Your task to perform on an android device: toggle javascript in the chrome app Image 0: 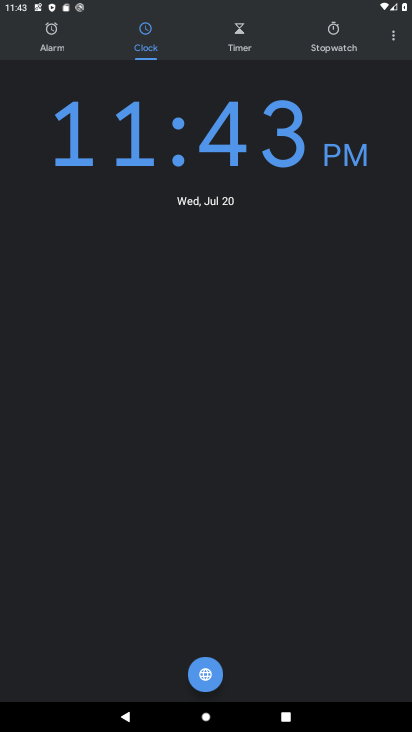
Step 0: press home button
Your task to perform on an android device: toggle javascript in the chrome app Image 1: 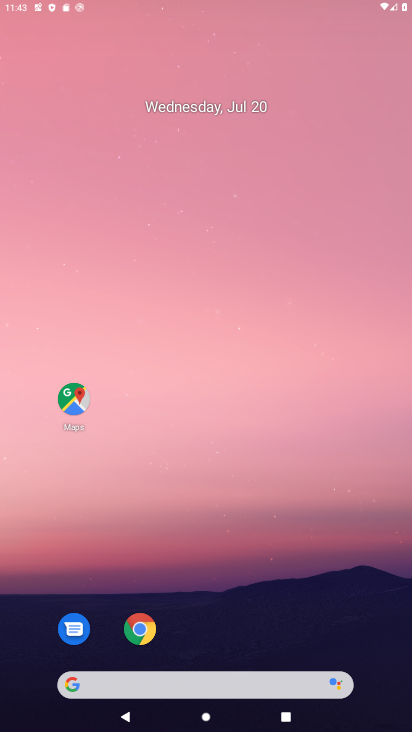
Step 1: drag from (256, 621) to (256, 263)
Your task to perform on an android device: toggle javascript in the chrome app Image 2: 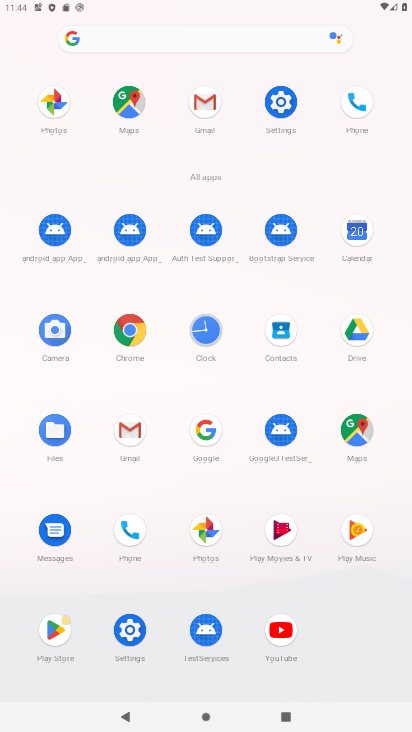
Step 2: click (133, 338)
Your task to perform on an android device: toggle javascript in the chrome app Image 3: 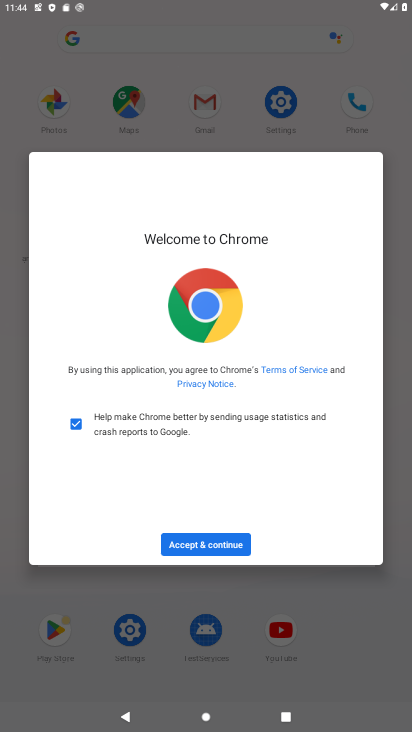
Step 3: click (225, 550)
Your task to perform on an android device: toggle javascript in the chrome app Image 4: 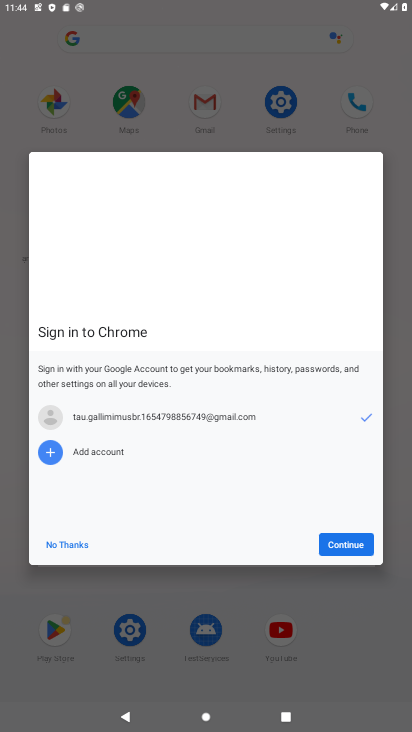
Step 4: click (334, 550)
Your task to perform on an android device: toggle javascript in the chrome app Image 5: 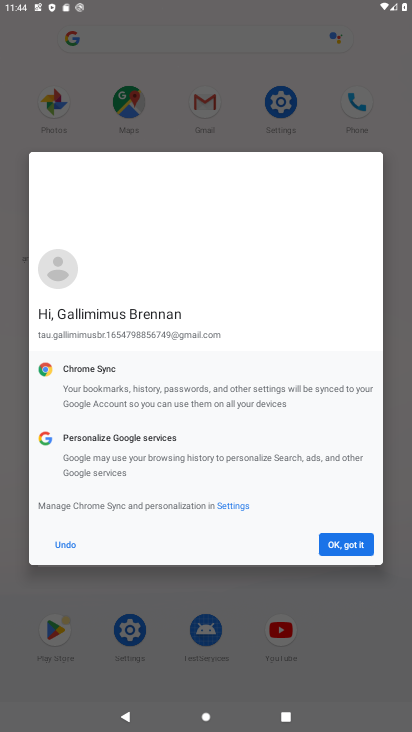
Step 5: click (326, 536)
Your task to perform on an android device: toggle javascript in the chrome app Image 6: 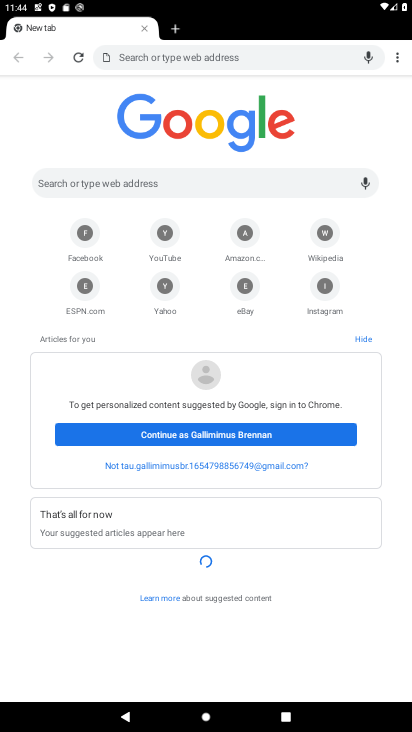
Step 6: click (394, 54)
Your task to perform on an android device: toggle javascript in the chrome app Image 7: 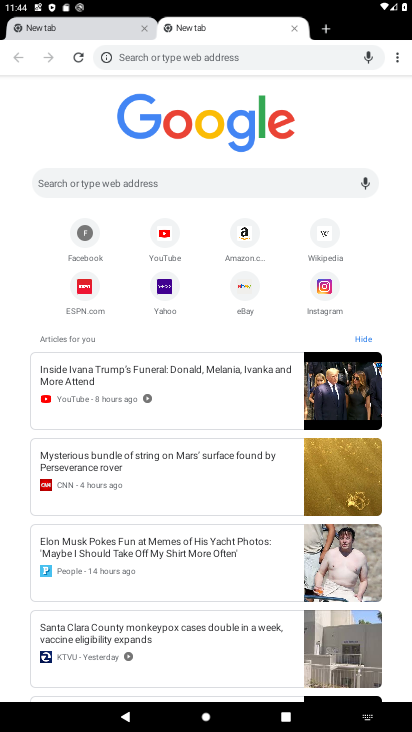
Step 7: click (402, 52)
Your task to perform on an android device: toggle javascript in the chrome app Image 8: 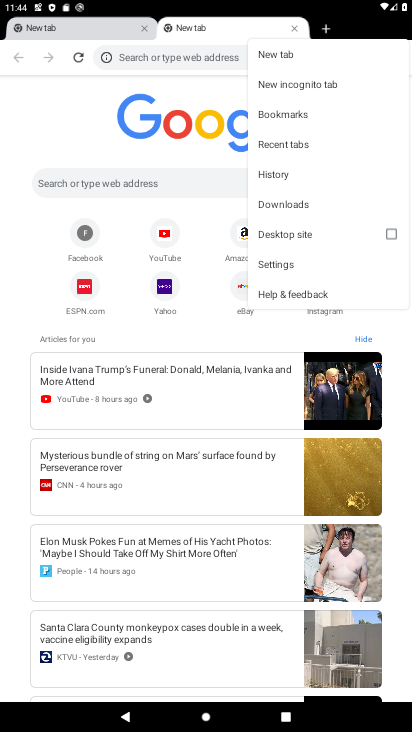
Step 8: click (291, 261)
Your task to perform on an android device: toggle javascript in the chrome app Image 9: 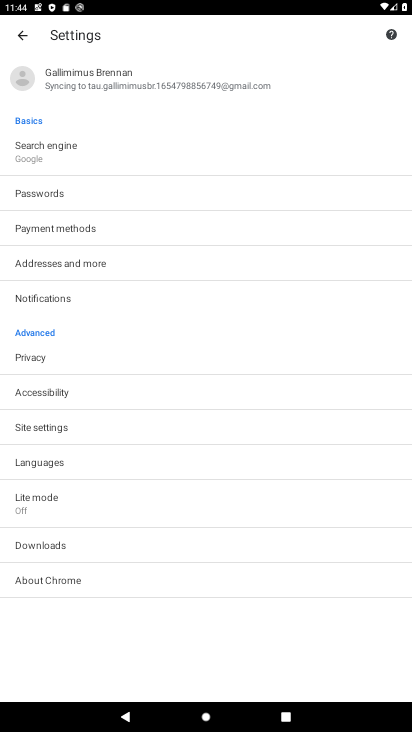
Step 9: click (83, 429)
Your task to perform on an android device: toggle javascript in the chrome app Image 10: 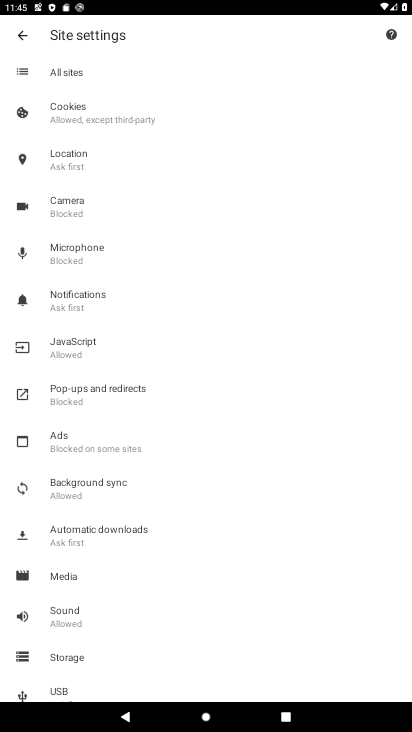
Step 10: click (88, 354)
Your task to perform on an android device: toggle javascript in the chrome app Image 11: 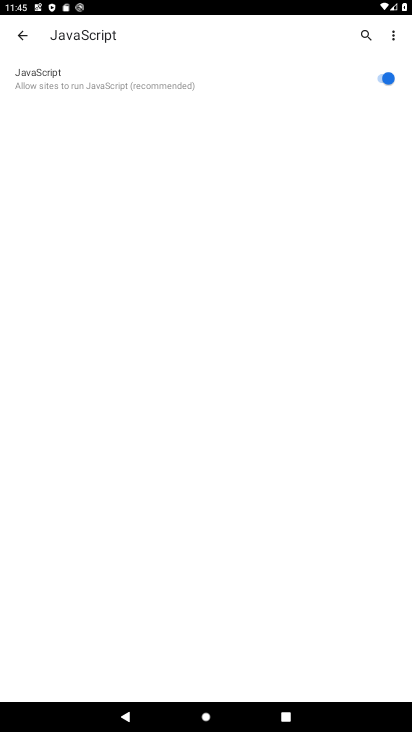
Step 11: task complete